Your task to perform on an android device: clear history in the chrome app Image 0: 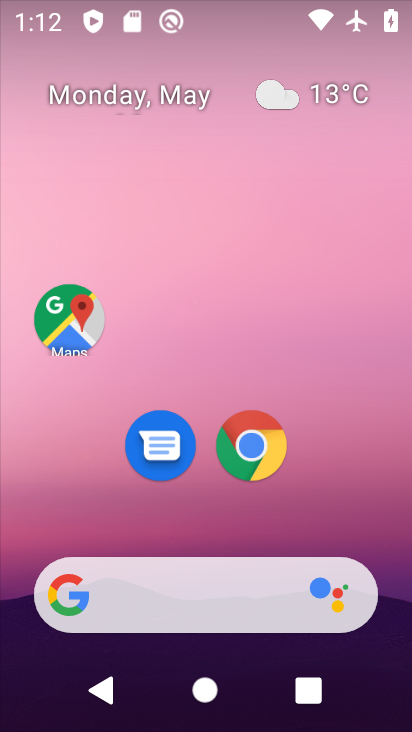
Step 0: drag from (400, 619) to (389, 521)
Your task to perform on an android device: clear history in the chrome app Image 1: 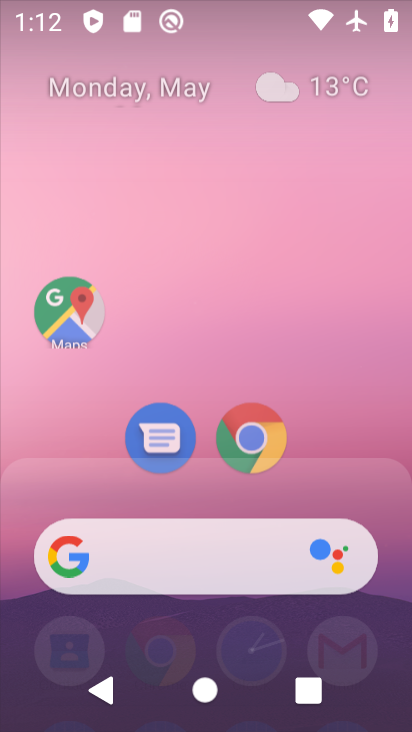
Step 1: drag from (376, 327) to (307, 43)
Your task to perform on an android device: clear history in the chrome app Image 2: 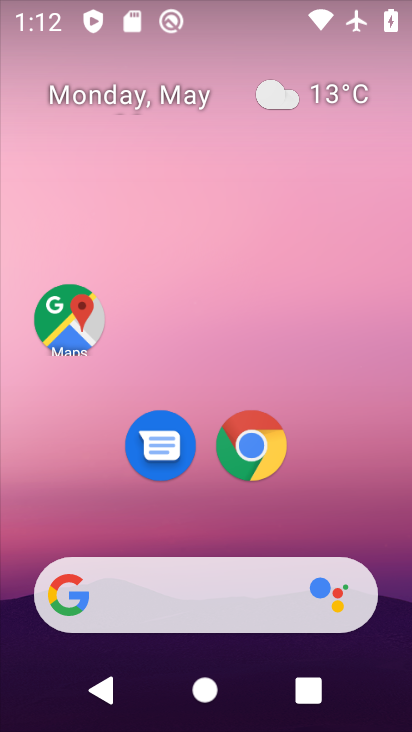
Step 2: drag from (393, 613) to (2, 188)
Your task to perform on an android device: clear history in the chrome app Image 3: 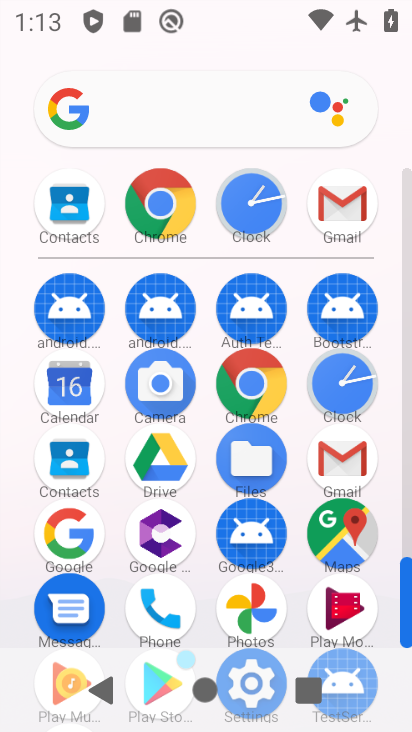
Step 3: click (254, 378)
Your task to perform on an android device: clear history in the chrome app Image 4: 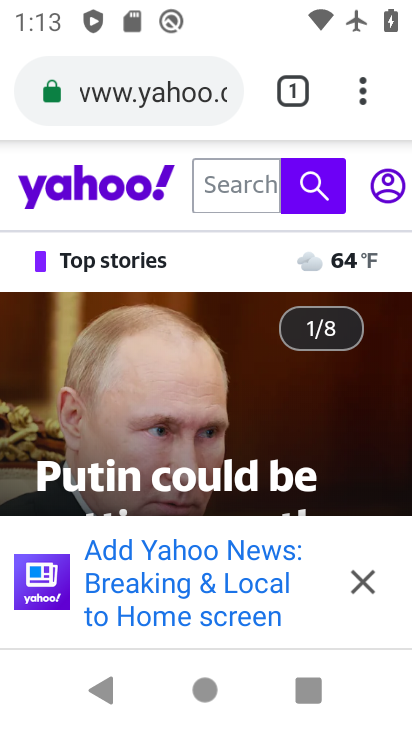
Step 4: press back button
Your task to perform on an android device: clear history in the chrome app Image 5: 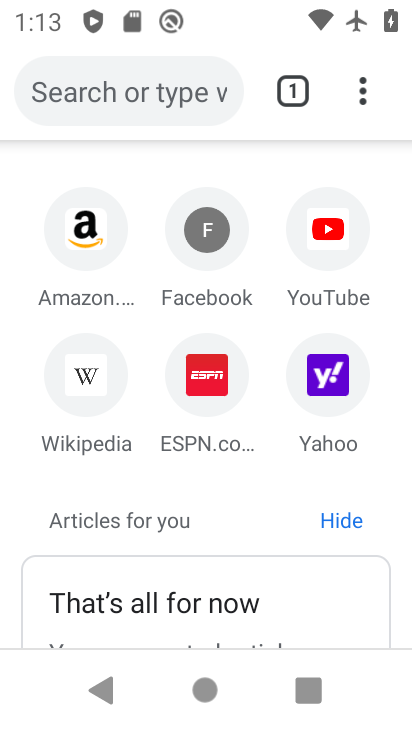
Step 5: click (364, 70)
Your task to perform on an android device: clear history in the chrome app Image 6: 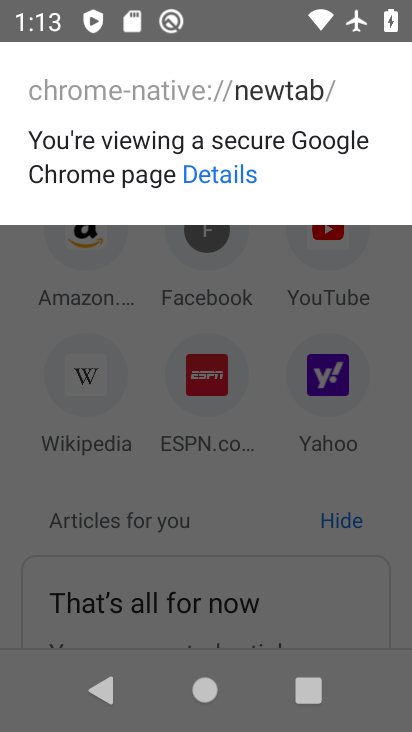
Step 6: click (378, 328)
Your task to perform on an android device: clear history in the chrome app Image 7: 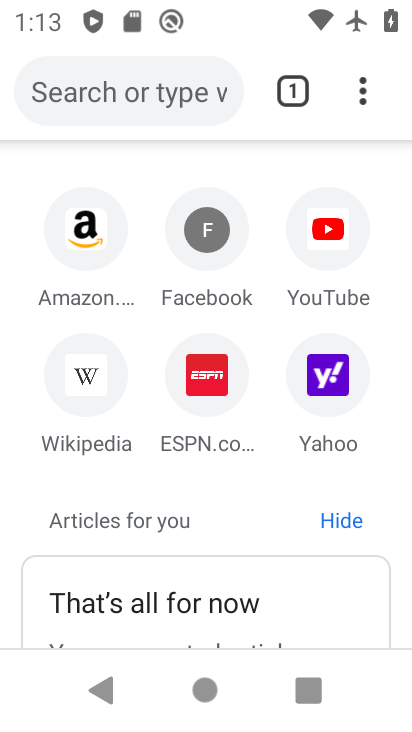
Step 7: click (366, 83)
Your task to perform on an android device: clear history in the chrome app Image 8: 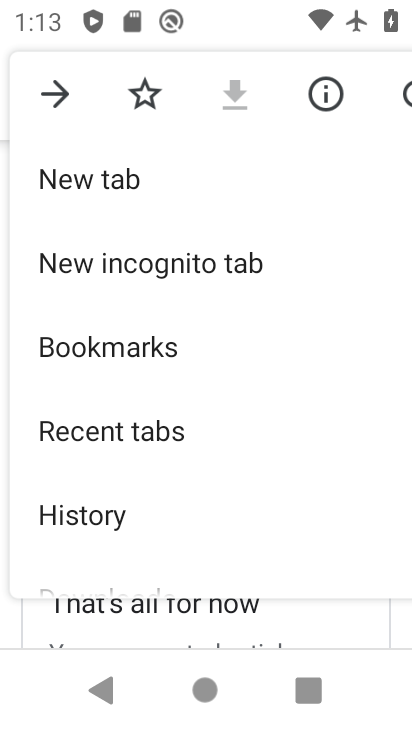
Step 8: click (118, 513)
Your task to perform on an android device: clear history in the chrome app Image 9: 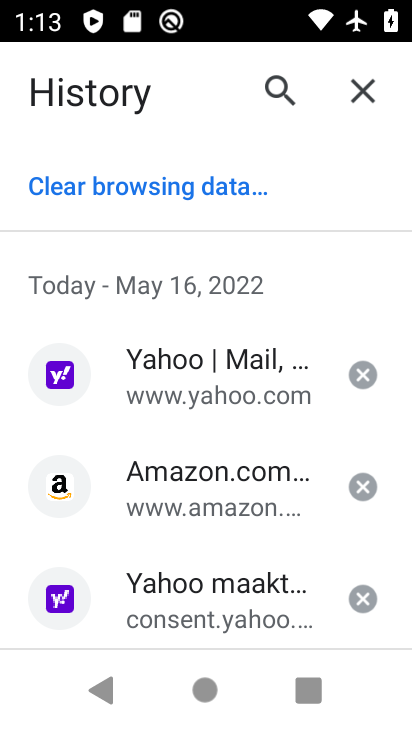
Step 9: click (129, 194)
Your task to perform on an android device: clear history in the chrome app Image 10: 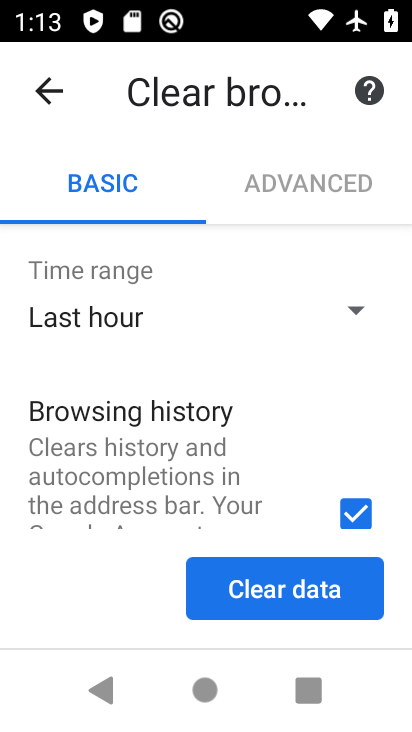
Step 10: click (304, 603)
Your task to perform on an android device: clear history in the chrome app Image 11: 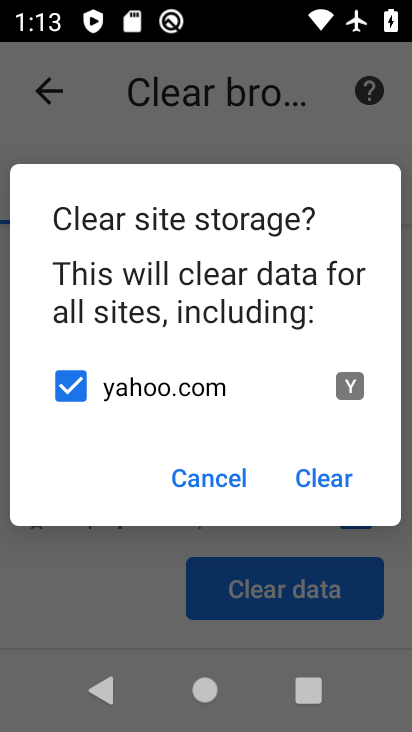
Step 11: click (327, 472)
Your task to perform on an android device: clear history in the chrome app Image 12: 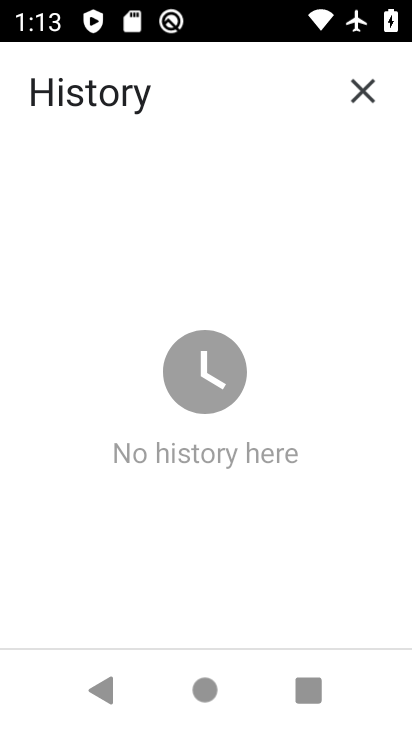
Step 12: task complete